Your task to perform on an android device: Open eBay Image 0: 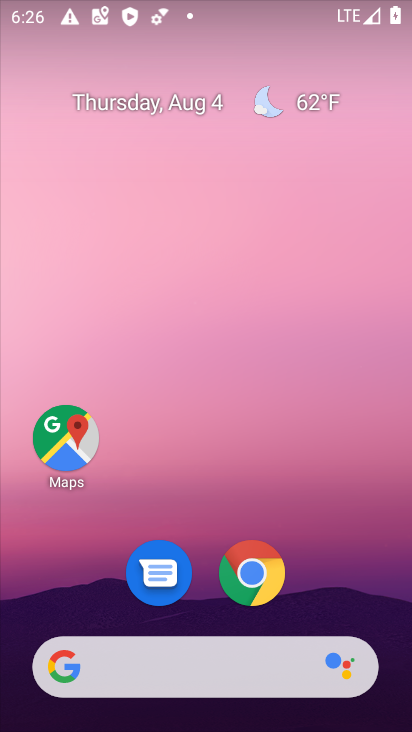
Step 0: press home button
Your task to perform on an android device: Open eBay Image 1: 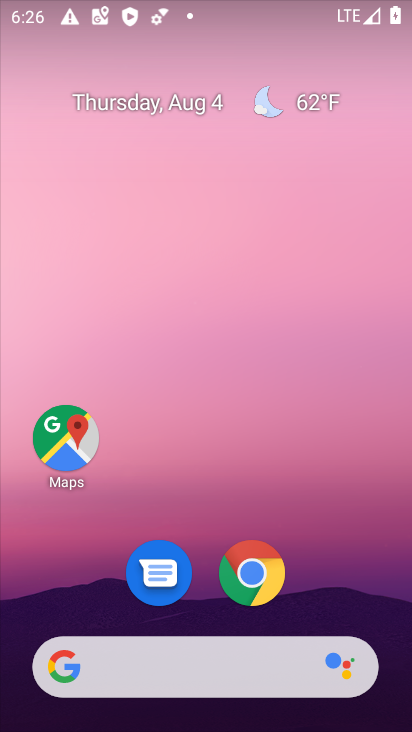
Step 1: click (68, 669)
Your task to perform on an android device: Open eBay Image 2: 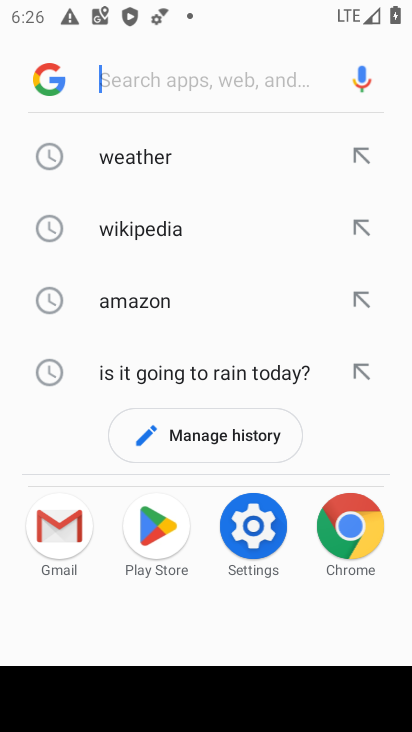
Step 2: type "eBay"
Your task to perform on an android device: Open eBay Image 3: 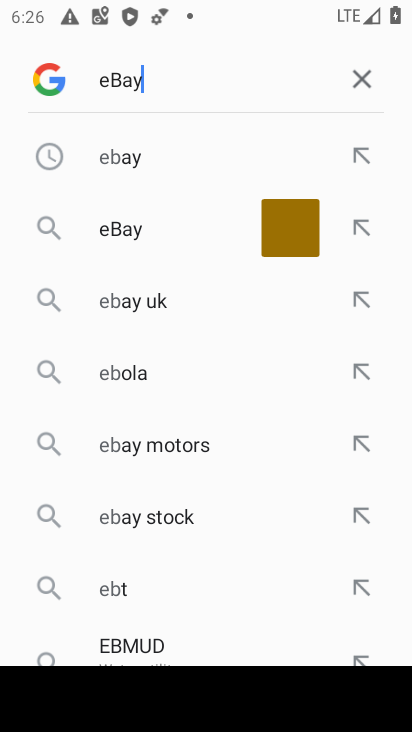
Step 3: press enter
Your task to perform on an android device: Open eBay Image 4: 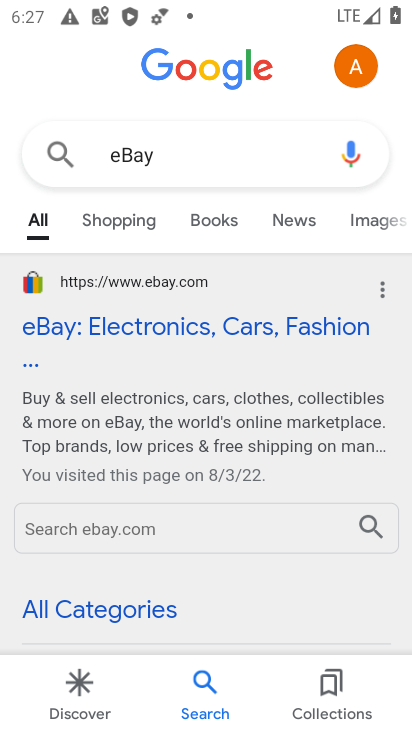
Step 4: click (213, 332)
Your task to perform on an android device: Open eBay Image 5: 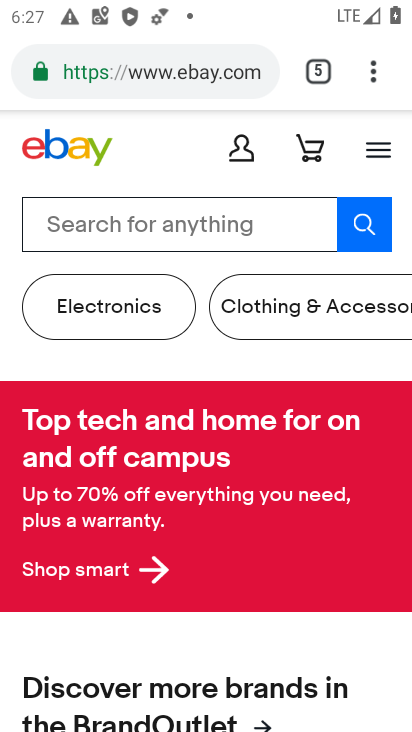
Step 5: task complete